Your task to perform on an android device: Search for seafood restaurants on Google Maps Image 0: 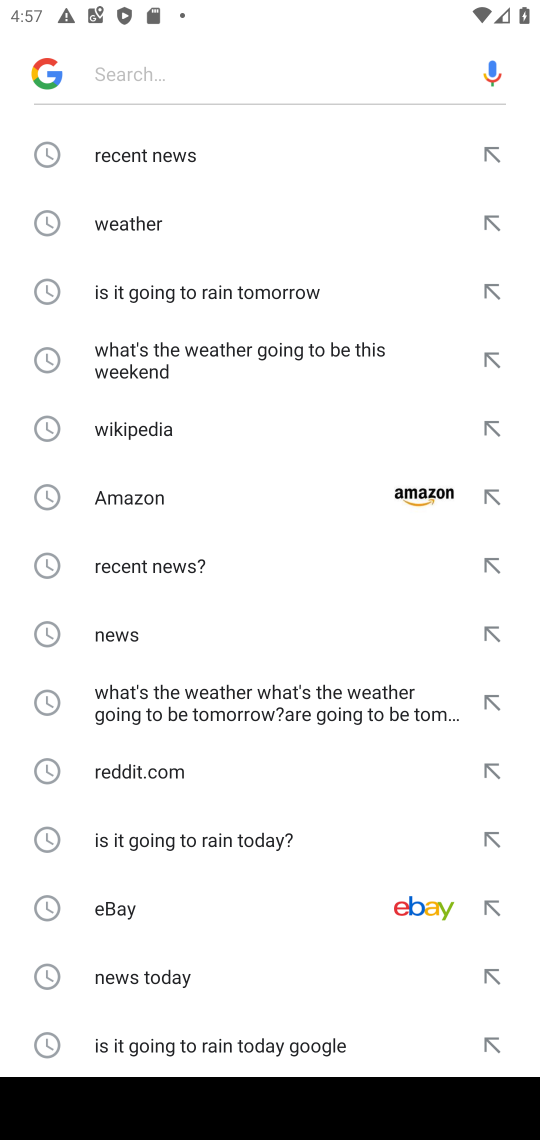
Step 0: press home button
Your task to perform on an android device: Search for seafood restaurants on Google Maps Image 1: 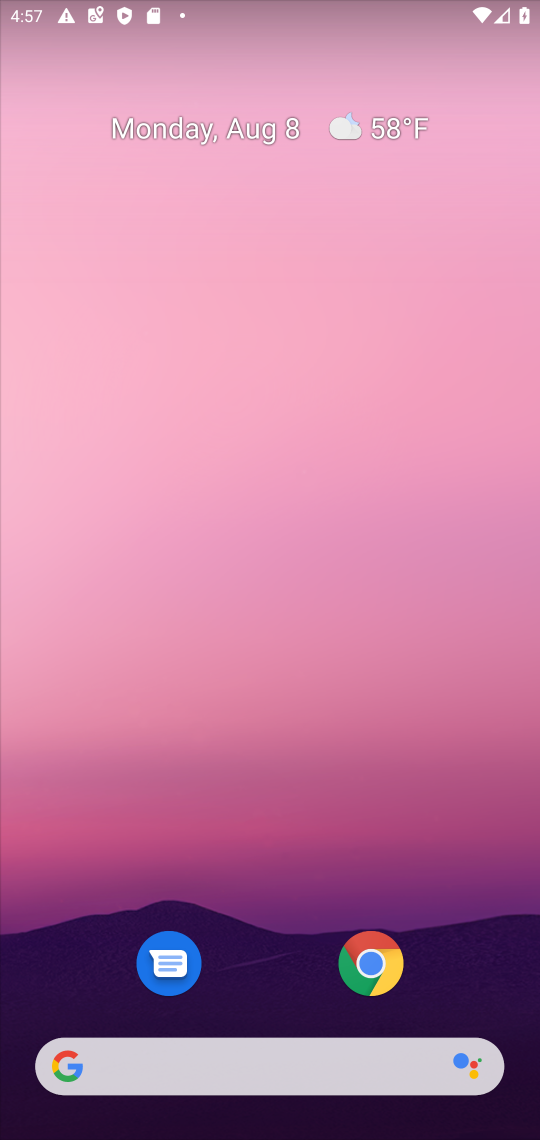
Step 1: drag from (312, 859) to (312, 144)
Your task to perform on an android device: Search for seafood restaurants on Google Maps Image 2: 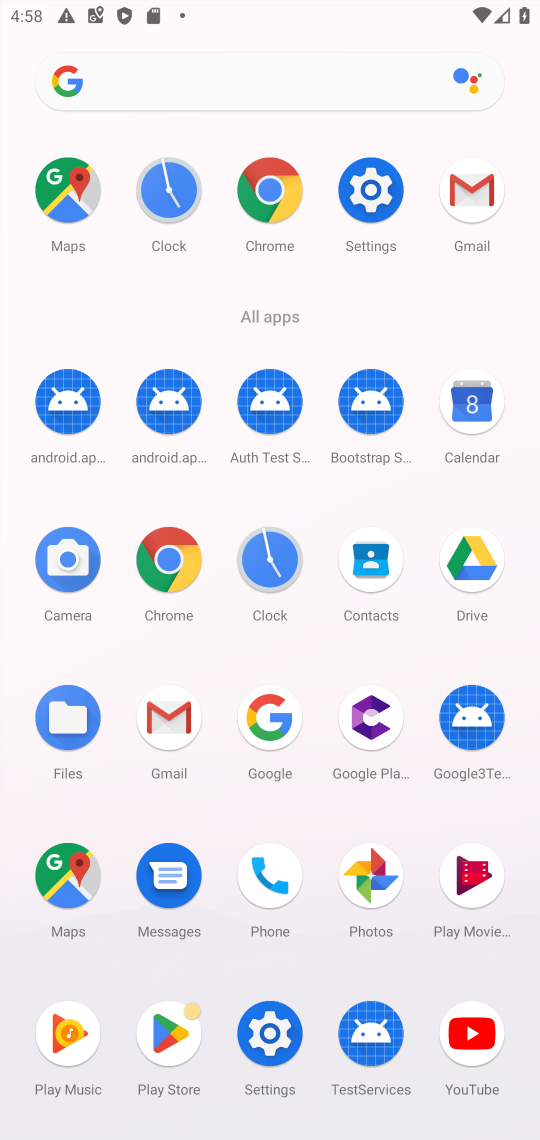
Step 2: click (34, 893)
Your task to perform on an android device: Search for seafood restaurants on Google Maps Image 3: 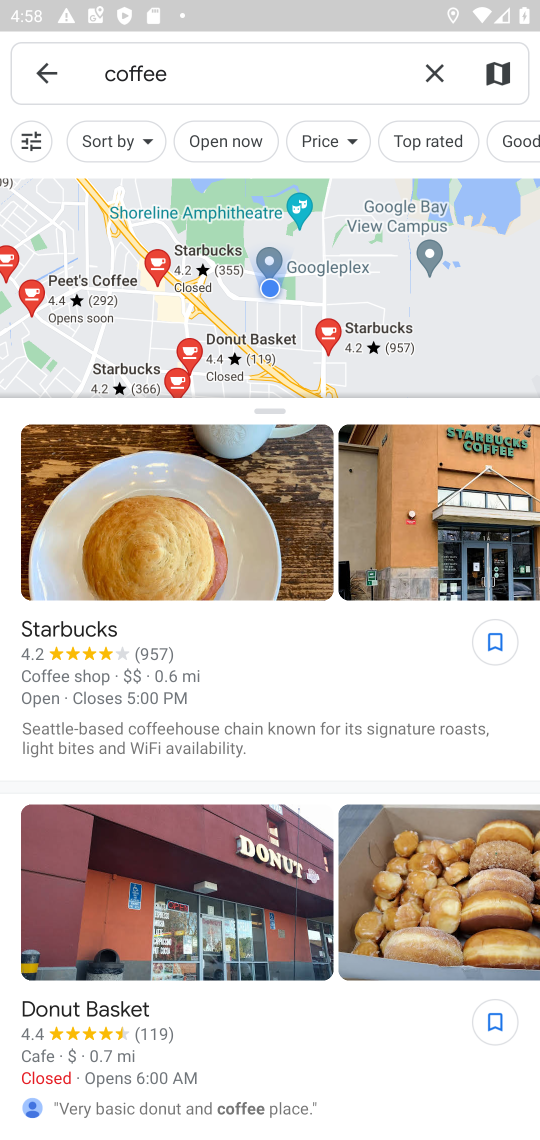
Step 3: click (437, 82)
Your task to perform on an android device: Search for seafood restaurants on Google Maps Image 4: 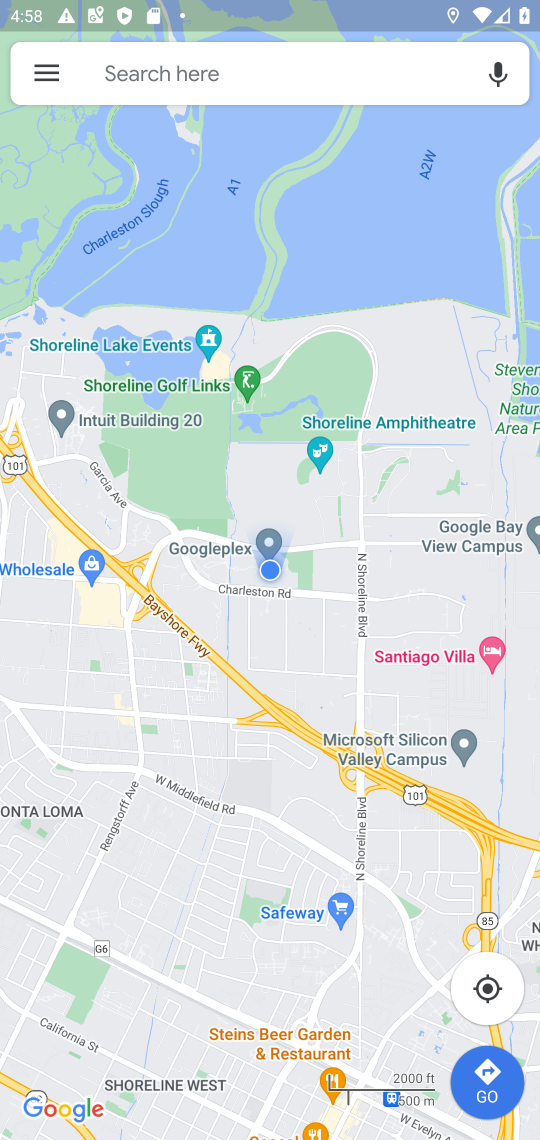
Step 4: click (206, 74)
Your task to perform on an android device: Search for seafood restaurants on Google Maps Image 5: 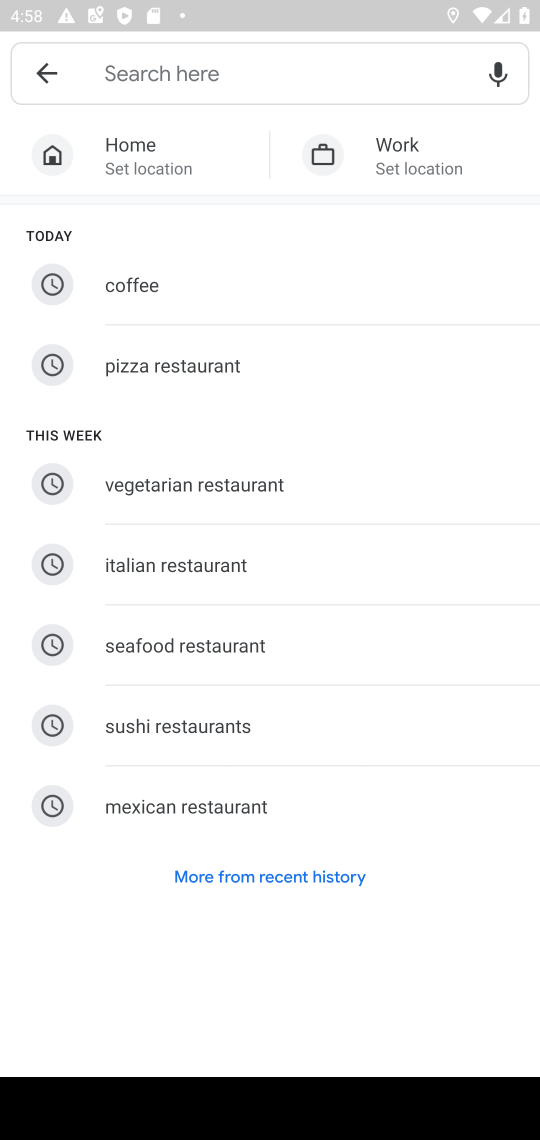
Step 5: type "seafood restauants"
Your task to perform on an android device: Search for seafood restaurants on Google Maps Image 6: 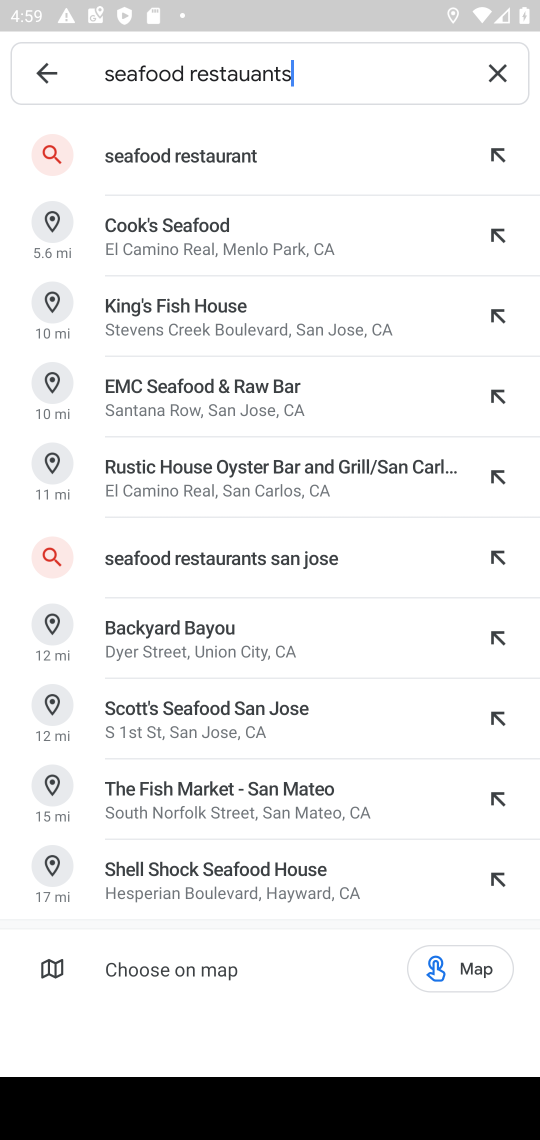
Step 6: click (374, 160)
Your task to perform on an android device: Search for seafood restaurants on Google Maps Image 7: 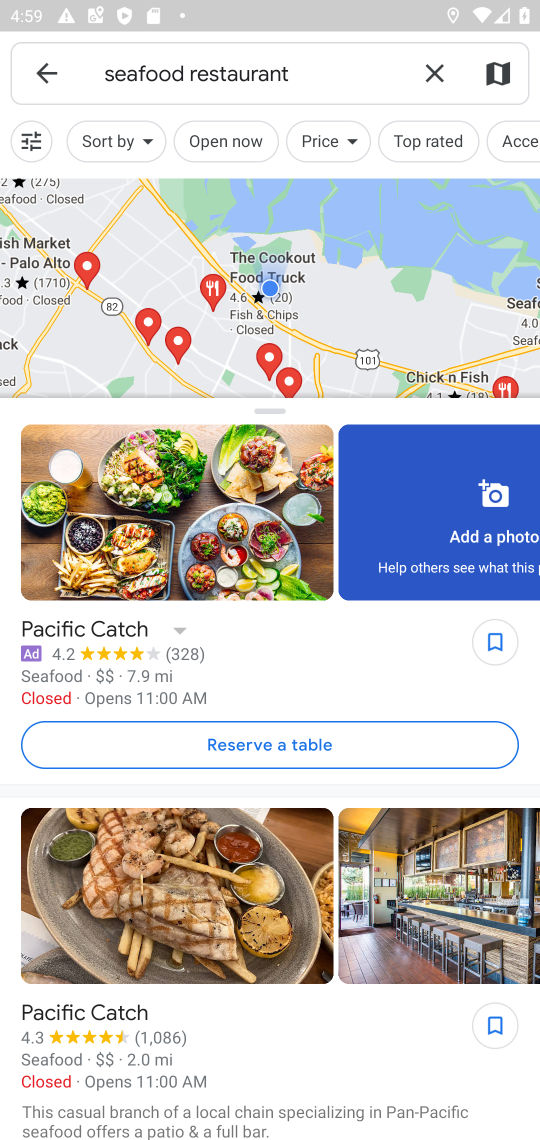
Step 7: task complete